Your task to perform on an android device: turn on javascript in the chrome app Image 0: 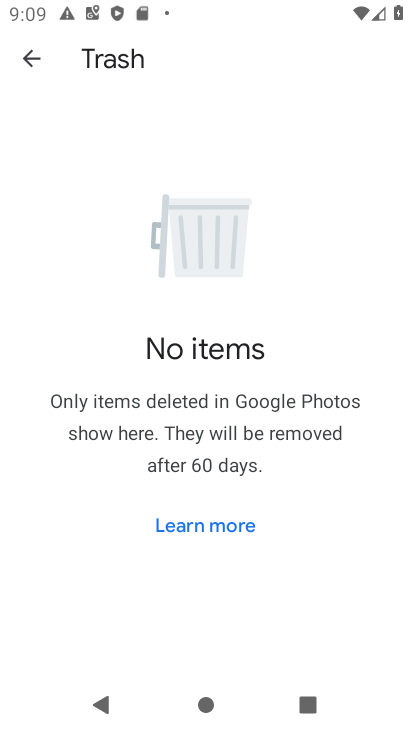
Step 0: press home button
Your task to perform on an android device: turn on javascript in the chrome app Image 1: 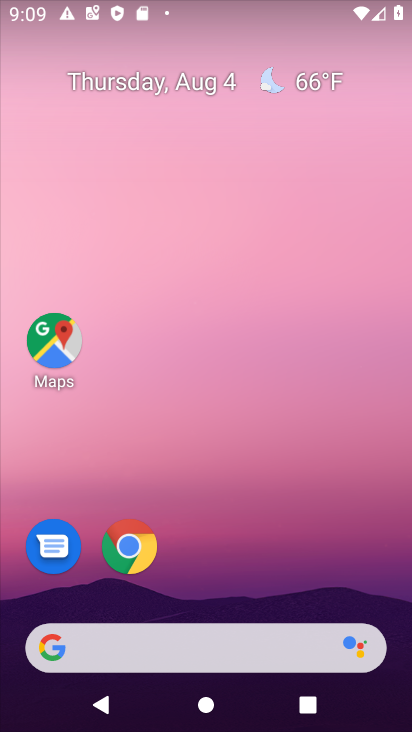
Step 1: drag from (233, 608) to (223, 142)
Your task to perform on an android device: turn on javascript in the chrome app Image 2: 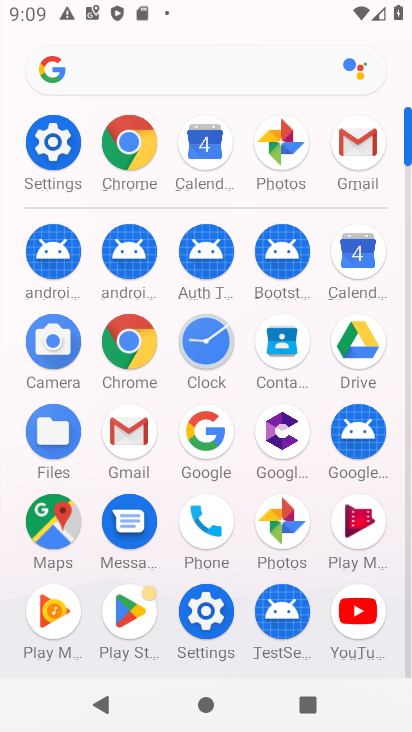
Step 2: click (122, 148)
Your task to perform on an android device: turn on javascript in the chrome app Image 3: 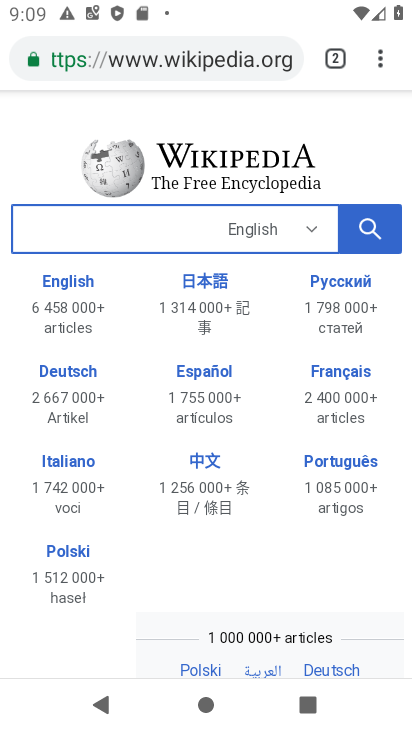
Step 3: drag from (385, 60) to (201, 578)
Your task to perform on an android device: turn on javascript in the chrome app Image 4: 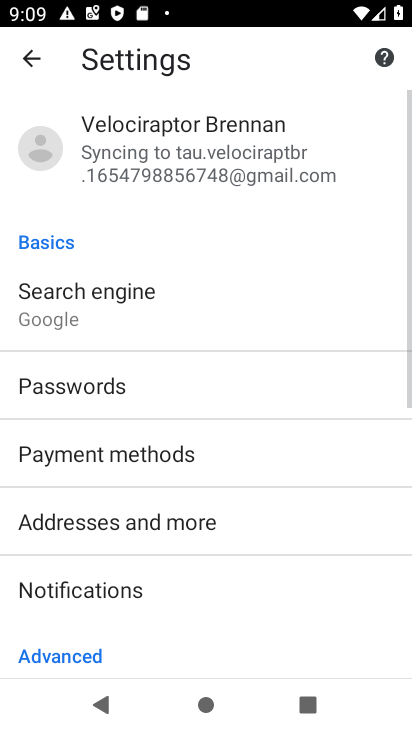
Step 4: drag from (220, 625) to (208, 300)
Your task to perform on an android device: turn on javascript in the chrome app Image 5: 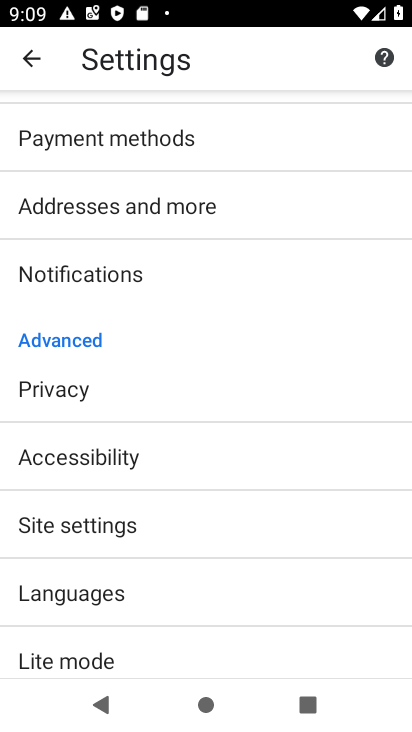
Step 5: click (73, 529)
Your task to perform on an android device: turn on javascript in the chrome app Image 6: 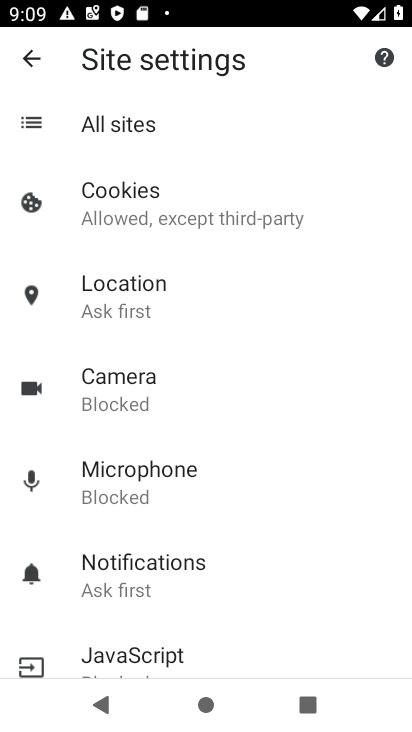
Step 6: click (147, 656)
Your task to perform on an android device: turn on javascript in the chrome app Image 7: 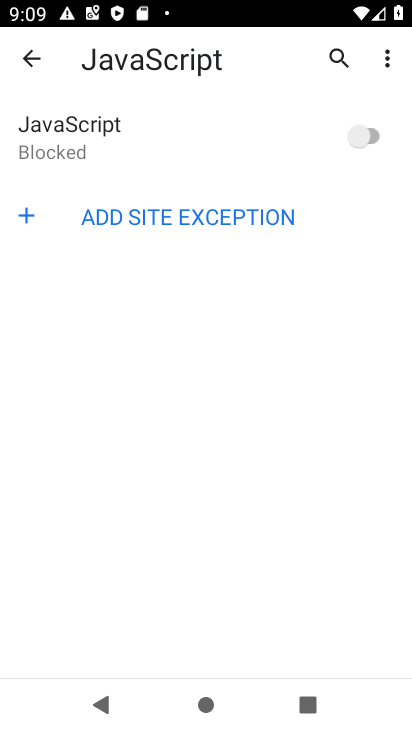
Step 7: click (364, 137)
Your task to perform on an android device: turn on javascript in the chrome app Image 8: 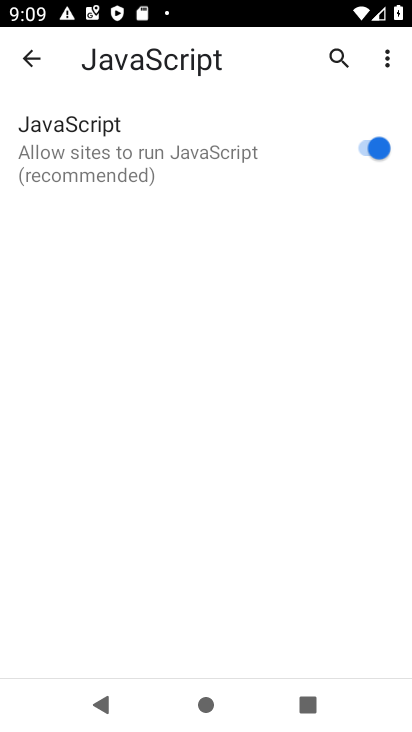
Step 8: task complete